Your task to perform on an android device: Open settings on Google Maps Image 0: 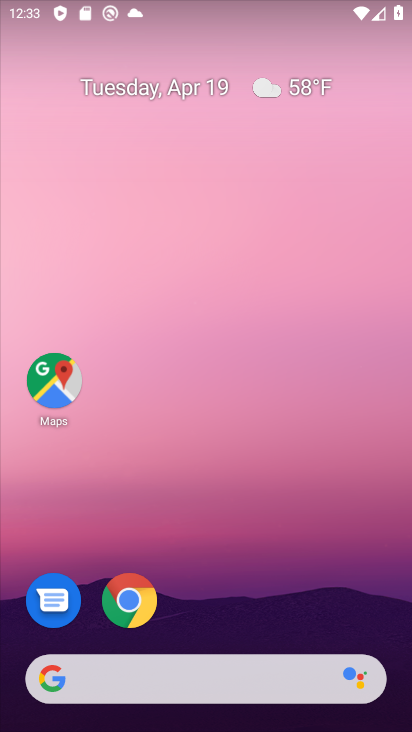
Step 0: drag from (311, 508) to (236, 206)
Your task to perform on an android device: Open settings on Google Maps Image 1: 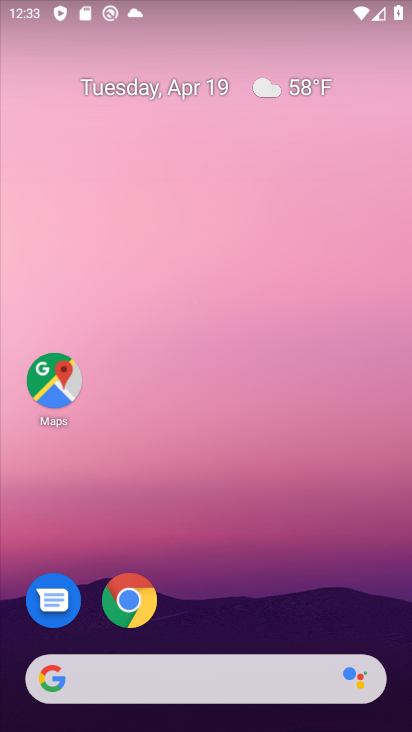
Step 1: drag from (313, 590) to (223, 163)
Your task to perform on an android device: Open settings on Google Maps Image 2: 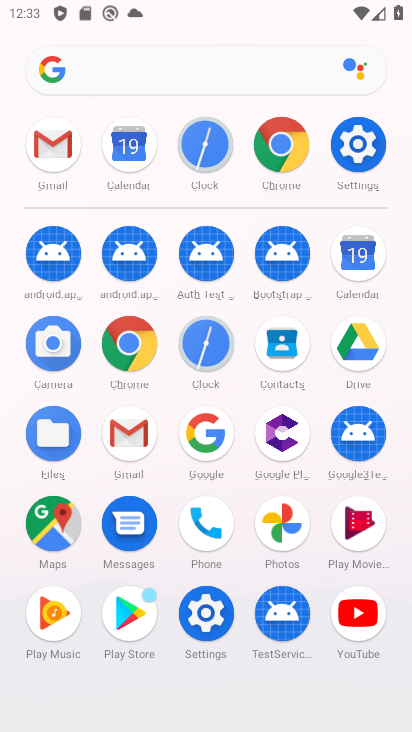
Step 2: click (61, 516)
Your task to perform on an android device: Open settings on Google Maps Image 3: 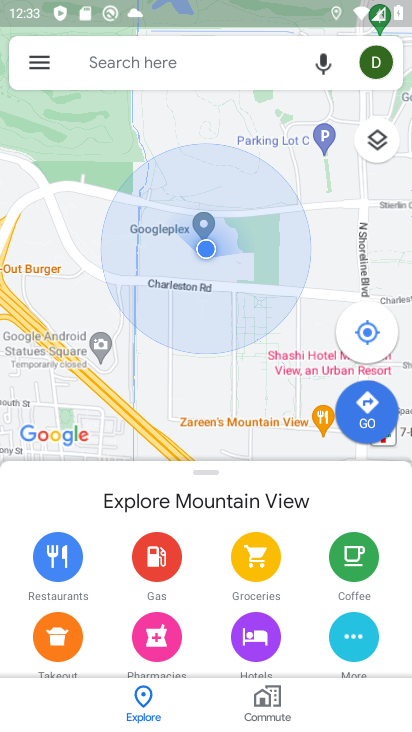
Step 3: click (37, 48)
Your task to perform on an android device: Open settings on Google Maps Image 4: 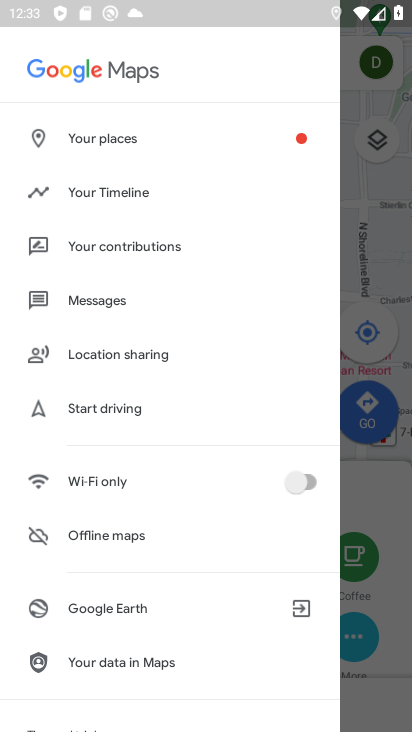
Step 4: click (118, 191)
Your task to perform on an android device: Open settings on Google Maps Image 5: 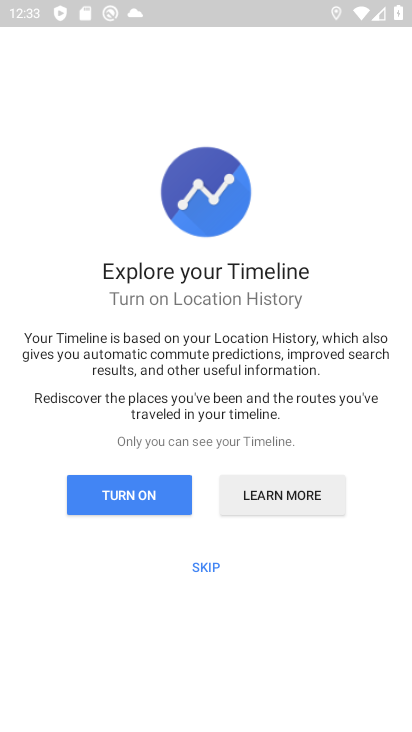
Step 5: click (205, 566)
Your task to perform on an android device: Open settings on Google Maps Image 6: 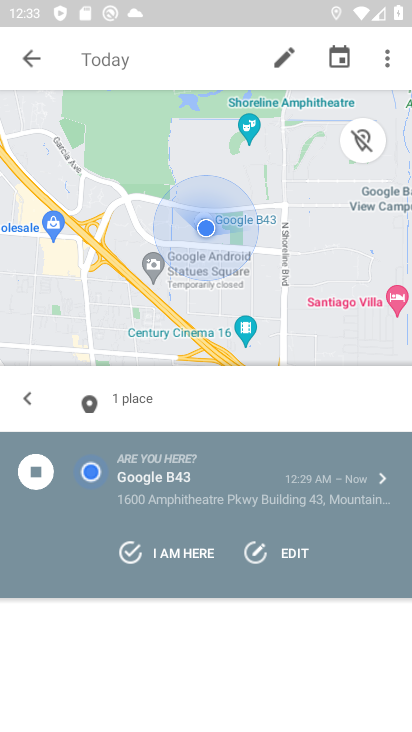
Step 6: click (387, 49)
Your task to perform on an android device: Open settings on Google Maps Image 7: 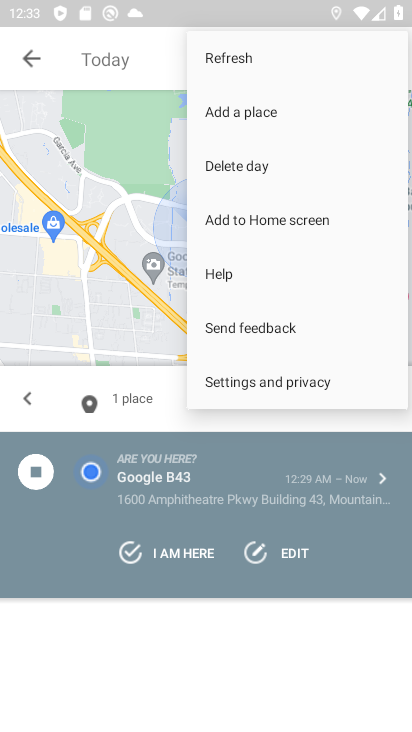
Step 7: click (294, 377)
Your task to perform on an android device: Open settings on Google Maps Image 8: 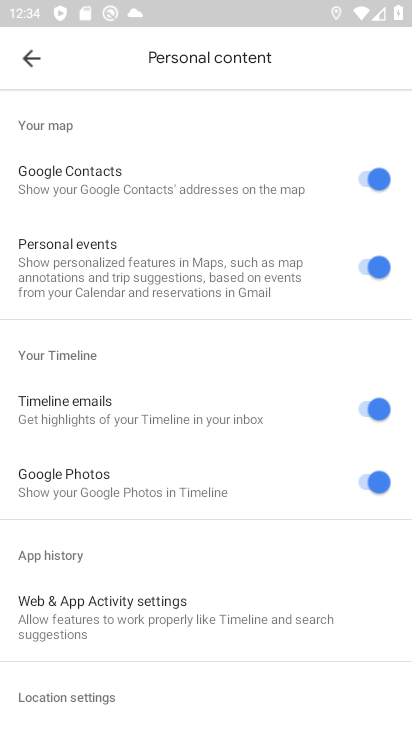
Step 8: task complete